Your task to perform on an android device: change the upload size in google photos Image 0: 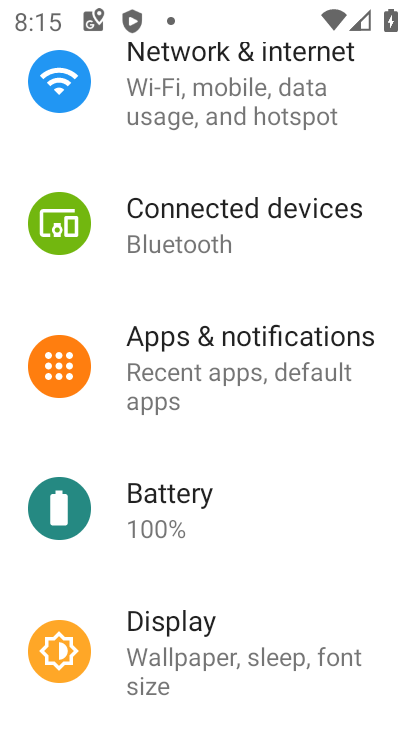
Step 0: click (408, 420)
Your task to perform on an android device: change the upload size in google photos Image 1: 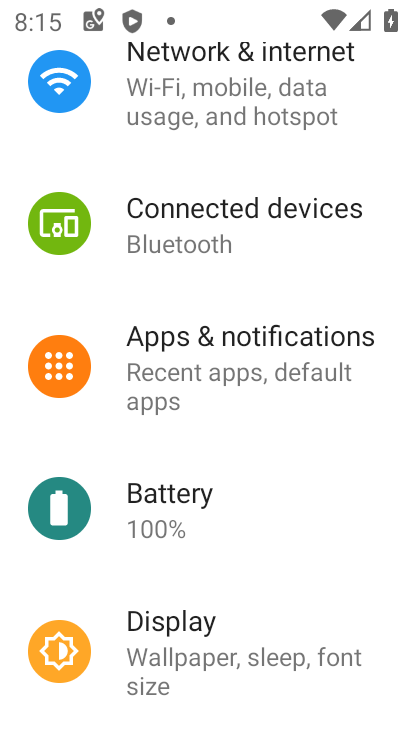
Step 1: press home button
Your task to perform on an android device: change the upload size in google photos Image 2: 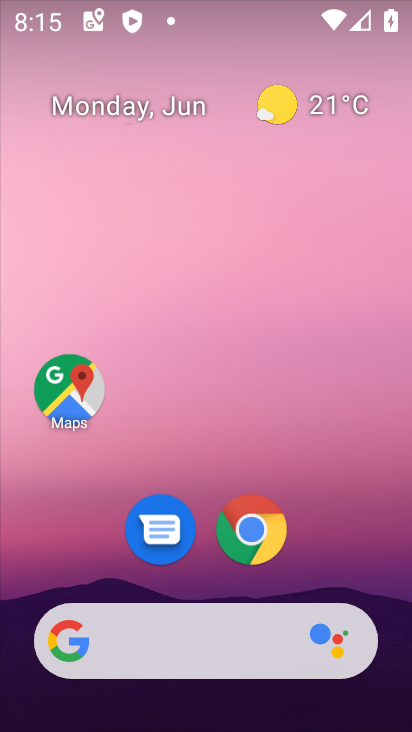
Step 2: drag from (39, 494) to (195, 149)
Your task to perform on an android device: change the upload size in google photos Image 3: 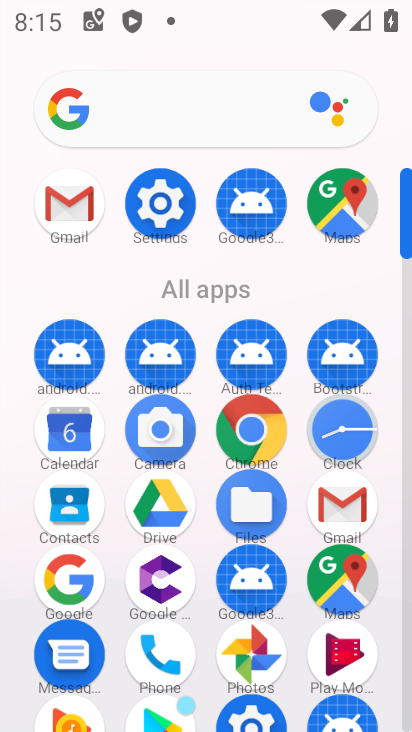
Step 3: click (245, 638)
Your task to perform on an android device: change the upload size in google photos Image 4: 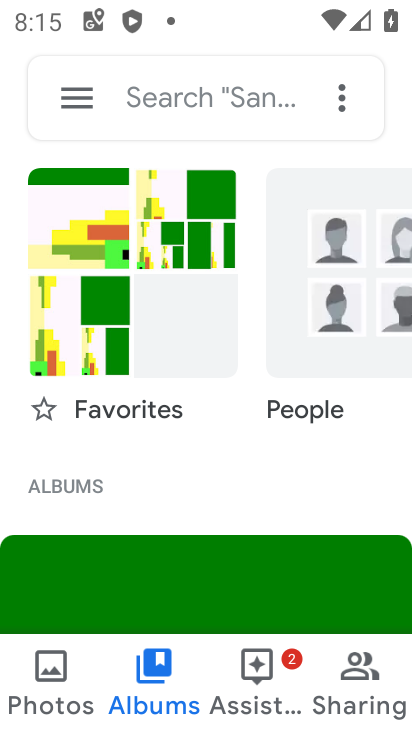
Step 4: click (83, 102)
Your task to perform on an android device: change the upload size in google photos Image 5: 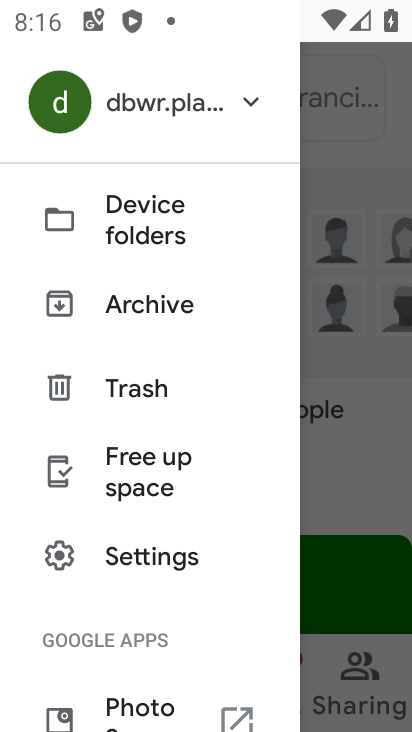
Step 5: click (95, 564)
Your task to perform on an android device: change the upload size in google photos Image 6: 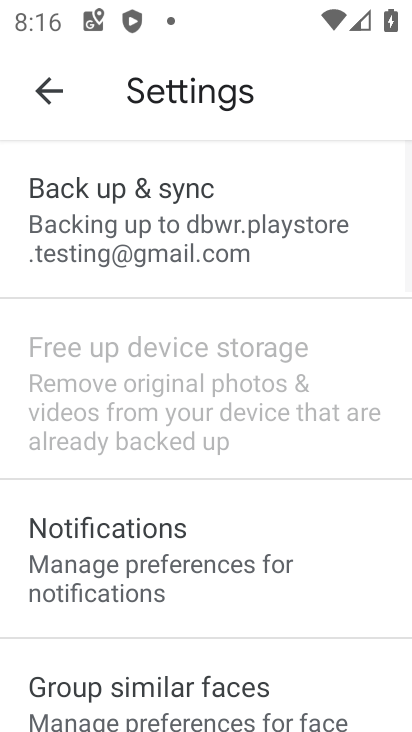
Step 6: click (203, 232)
Your task to perform on an android device: change the upload size in google photos Image 7: 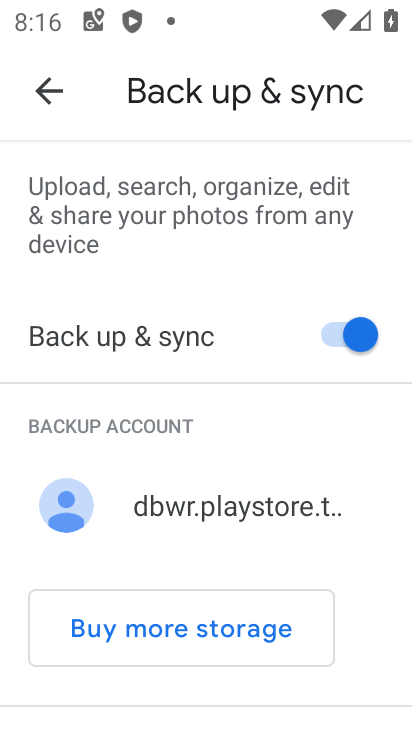
Step 7: drag from (1, 534) to (213, 114)
Your task to perform on an android device: change the upload size in google photos Image 8: 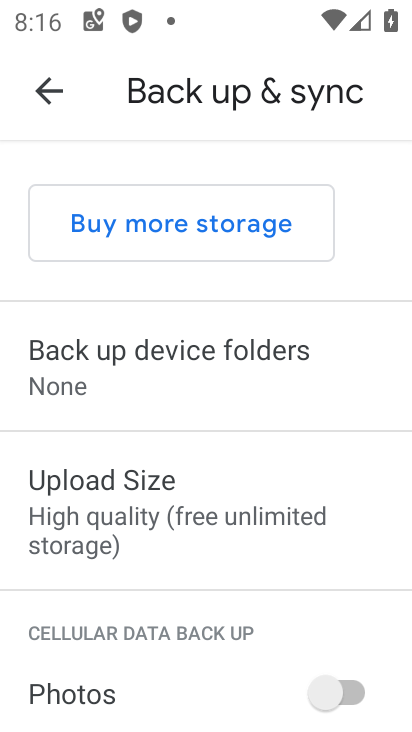
Step 8: click (69, 520)
Your task to perform on an android device: change the upload size in google photos Image 9: 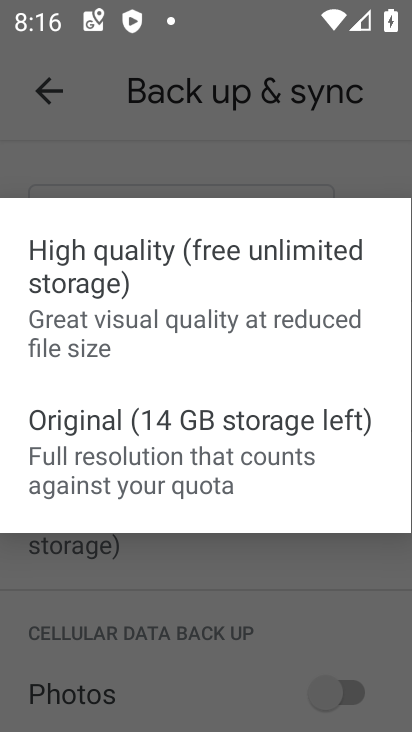
Step 9: click (137, 485)
Your task to perform on an android device: change the upload size in google photos Image 10: 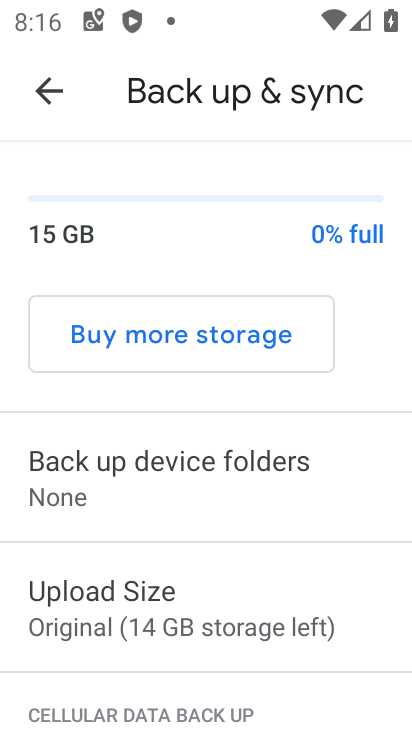
Step 10: task complete